Your task to perform on an android device: turn notification dots on Image 0: 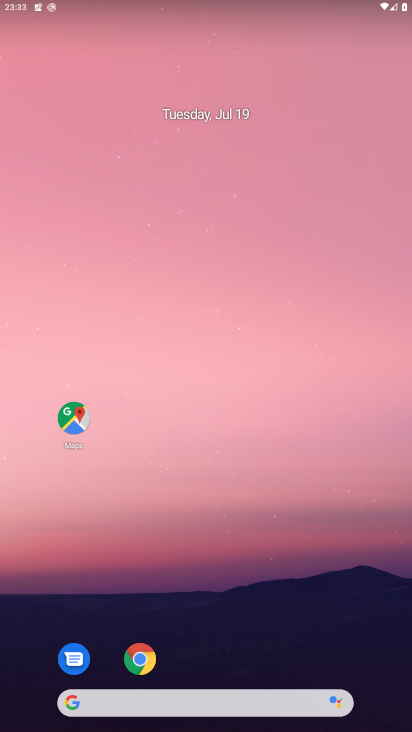
Step 0: drag from (291, 572) to (284, 214)
Your task to perform on an android device: turn notification dots on Image 1: 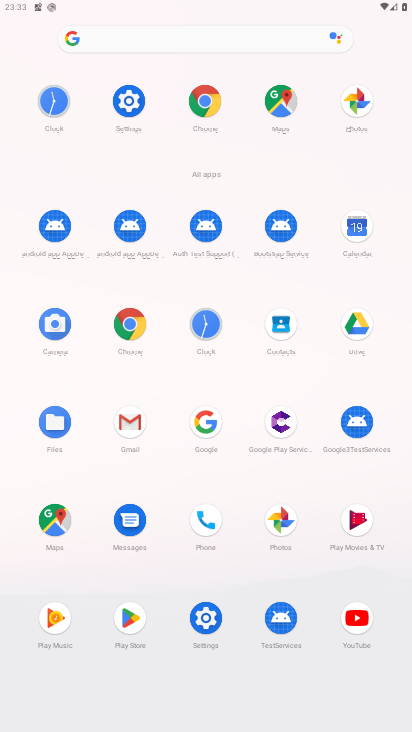
Step 1: click (197, 618)
Your task to perform on an android device: turn notification dots on Image 2: 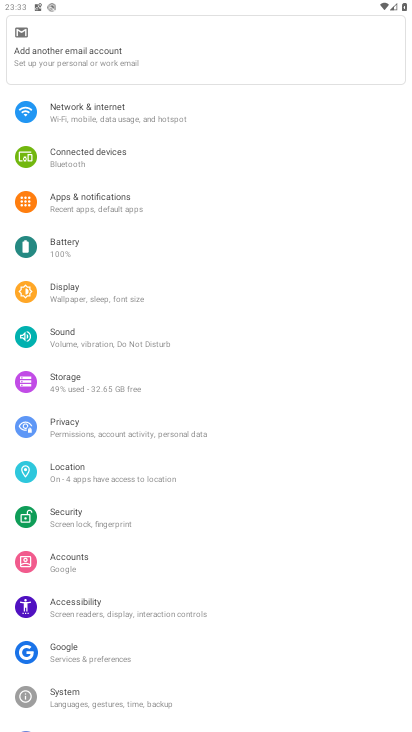
Step 2: click (148, 206)
Your task to perform on an android device: turn notification dots on Image 3: 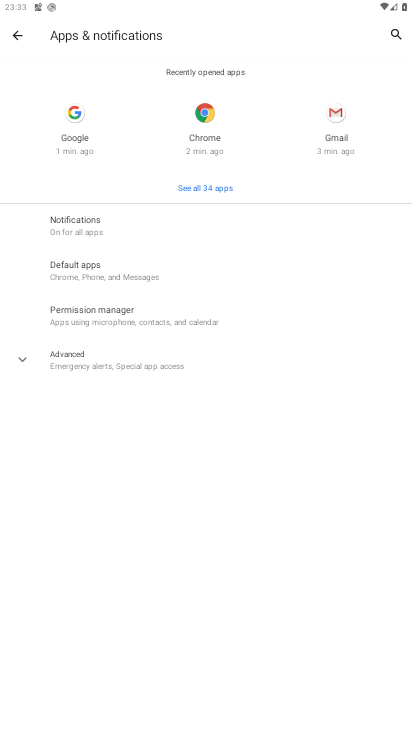
Step 3: click (143, 221)
Your task to perform on an android device: turn notification dots on Image 4: 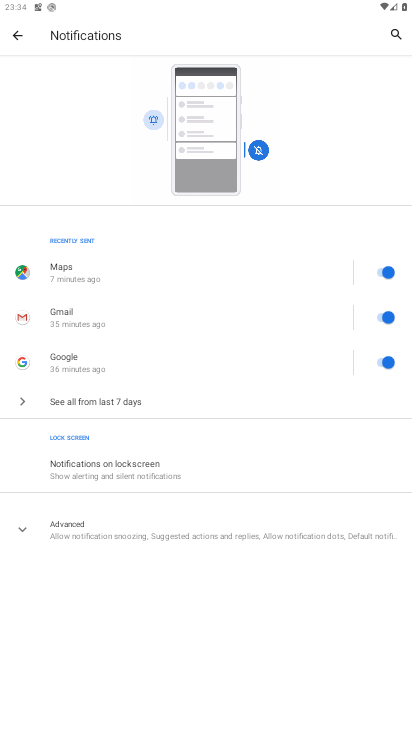
Step 4: click (125, 539)
Your task to perform on an android device: turn notification dots on Image 5: 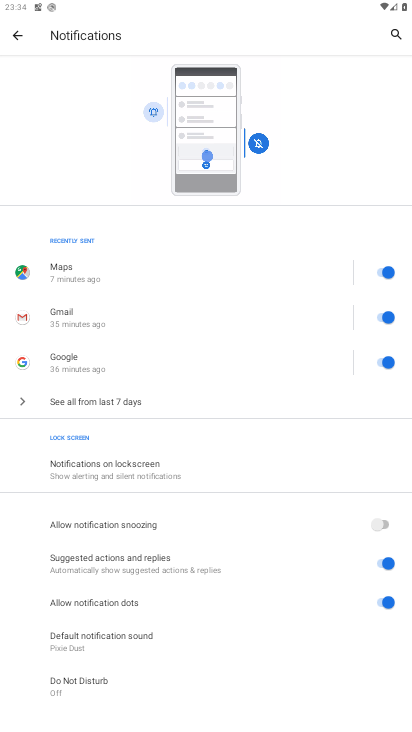
Step 5: task complete